Your task to perform on an android device: check google app version Image 0: 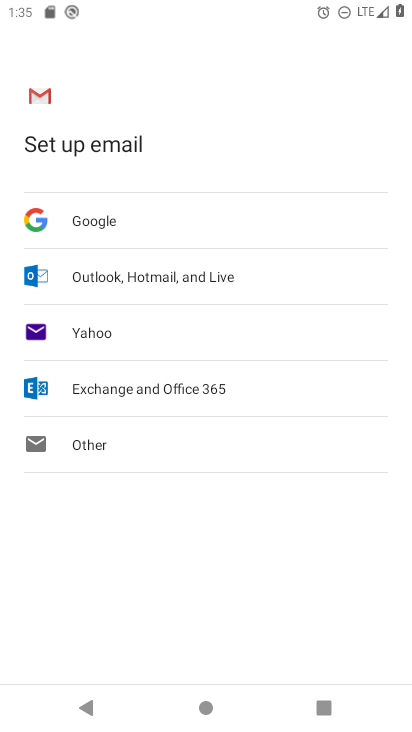
Step 0: press home button
Your task to perform on an android device: check google app version Image 1: 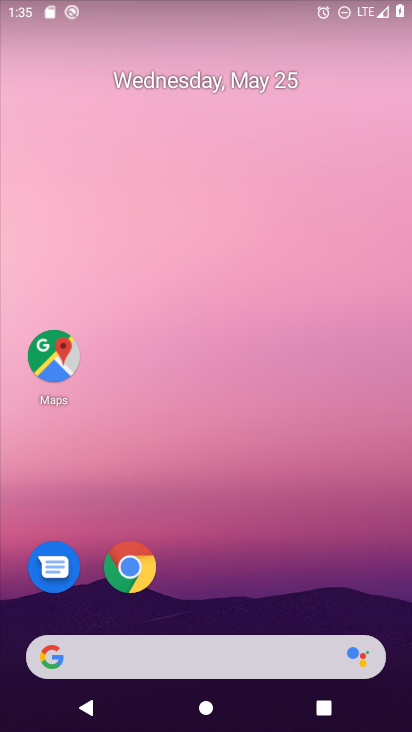
Step 1: drag from (389, 615) to (333, 262)
Your task to perform on an android device: check google app version Image 2: 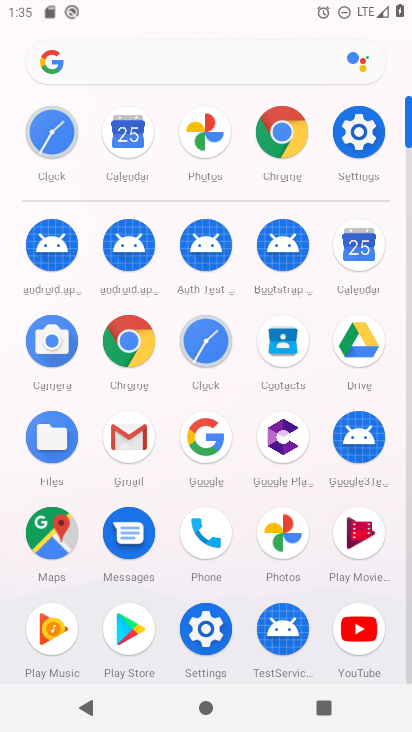
Step 2: click (209, 434)
Your task to perform on an android device: check google app version Image 3: 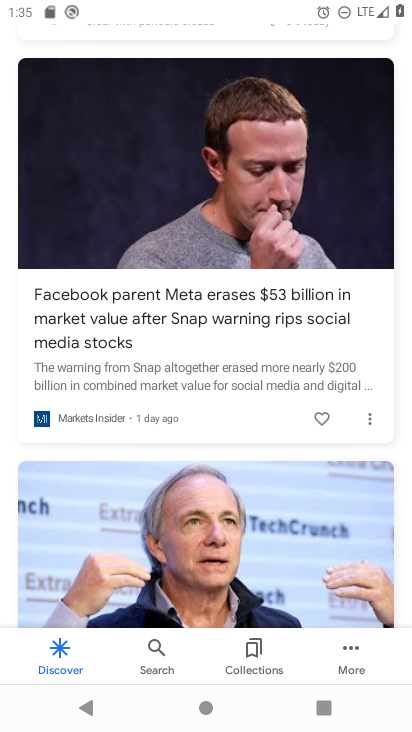
Step 3: click (345, 662)
Your task to perform on an android device: check google app version Image 4: 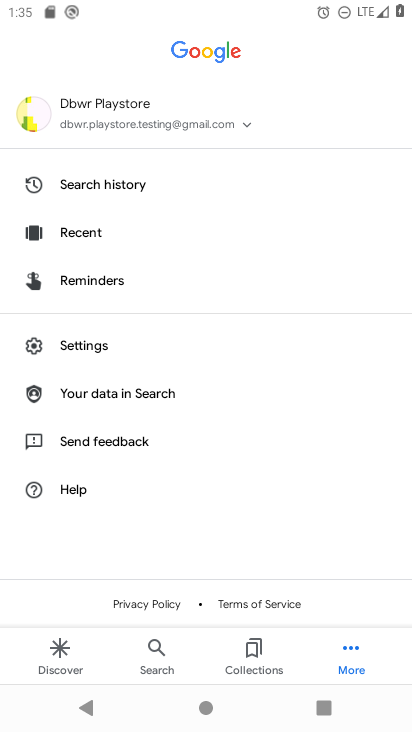
Step 4: click (64, 351)
Your task to perform on an android device: check google app version Image 5: 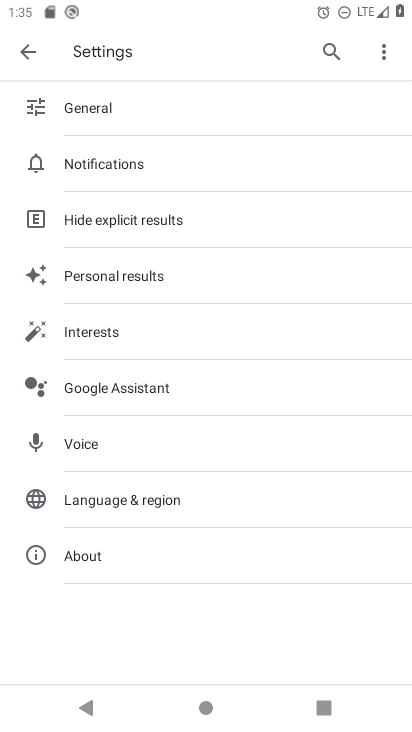
Step 5: click (85, 551)
Your task to perform on an android device: check google app version Image 6: 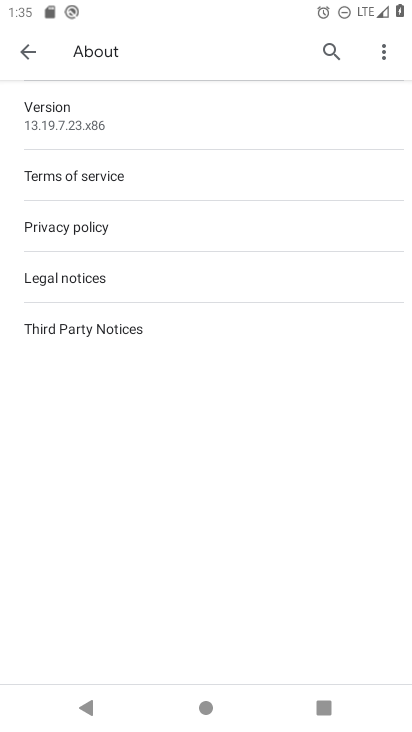
Step 6: click (106, 120)
Your task to perform on an android device: check google app version Image 7: 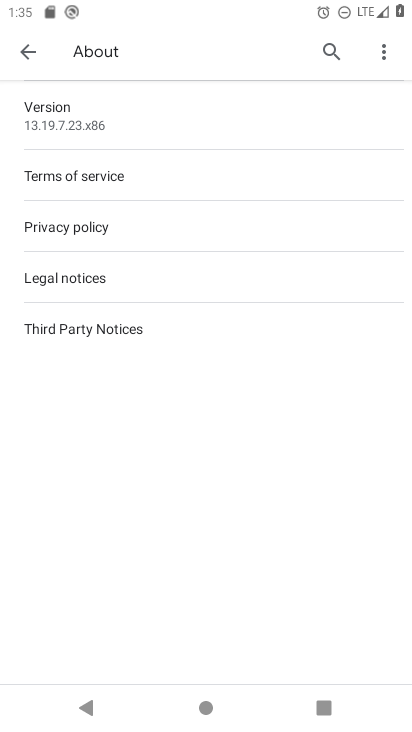
Step 7: task complete